Your task to perform on an android device: choose inbox layout in the gmail app Image 0: 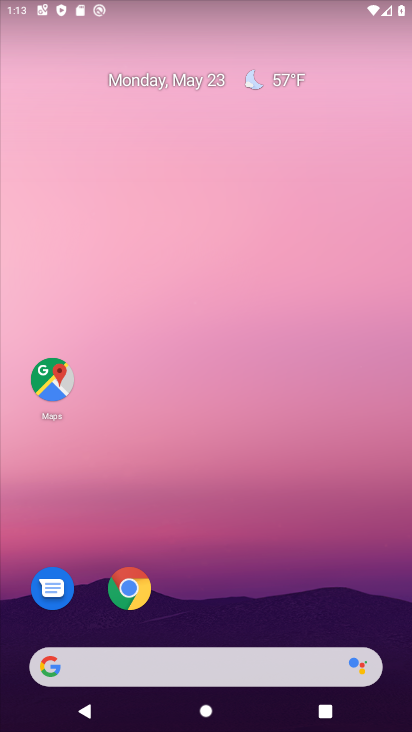
Step 0: drag from (230, 622) to (208, 180)
Your task to perform on an android device: choose inbox layout in the gmail app Image 1: 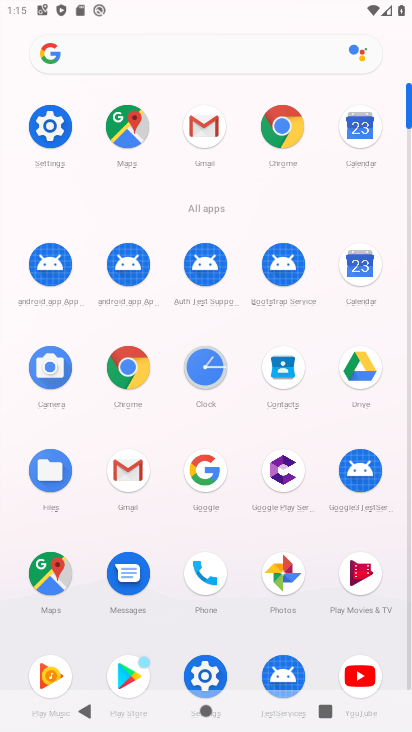
Step 1: click (221, 136)
Your task to perform on an android device: choose inbox layout in the gmail app Image 2: 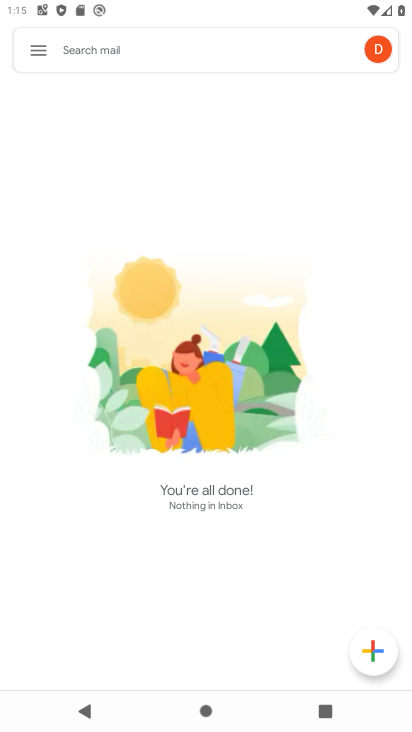
Step 2: click (47, 50)
Your task to perform on an android device: choose inbox layout in the gmail app Image 3: 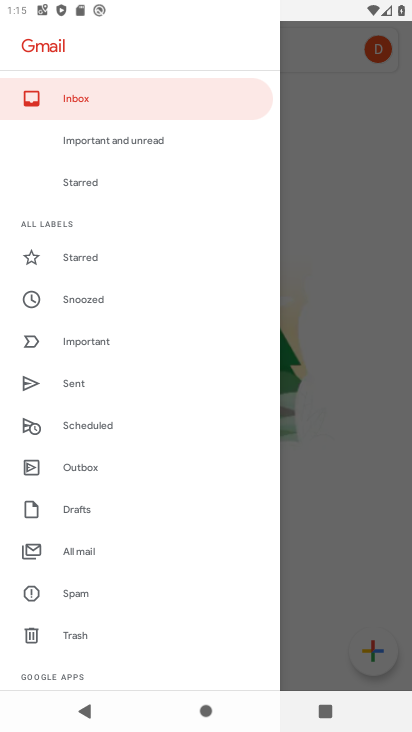
Step 3: drag from (174, 636) to (143, 197)
Your task to perform on an android device: choose inbox layout in the gmail app Image 4: 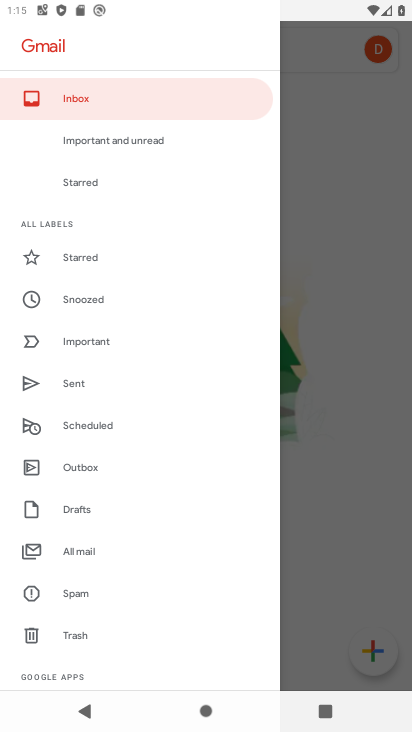
Step 4: drag from (61, 640) to (65, 104)
Your task to perform on an android device: choose inbox layout in the gmail app Image 5: 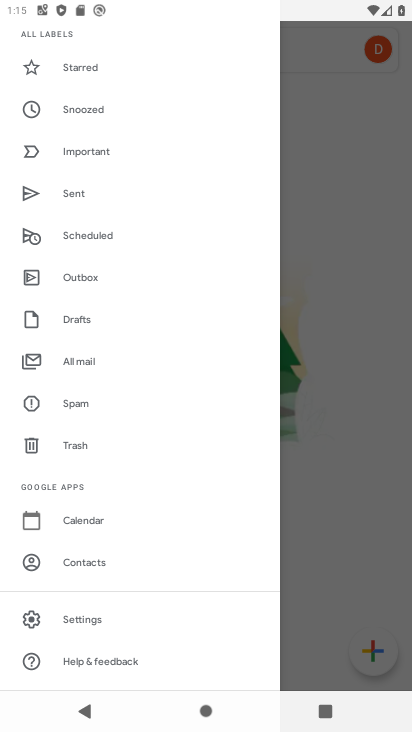
Step 5: click (81, 623)
Your task to perform on an android device: choose inbox layout in the gmail app Image 6: 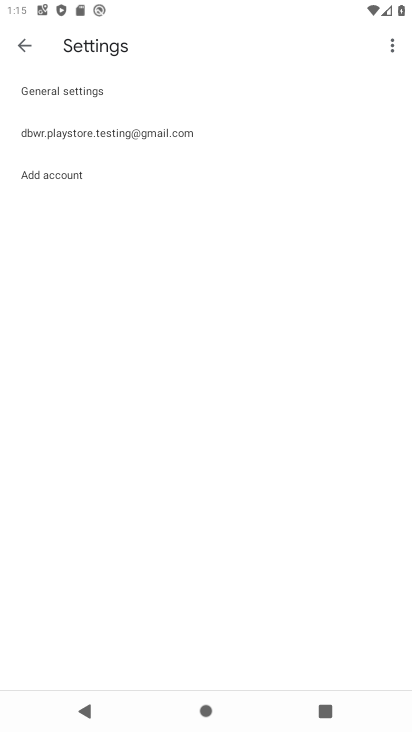
Step 6: click (160, 133)
Your task to perform on an android device: choose inbox layout in the gmail app Image 7: 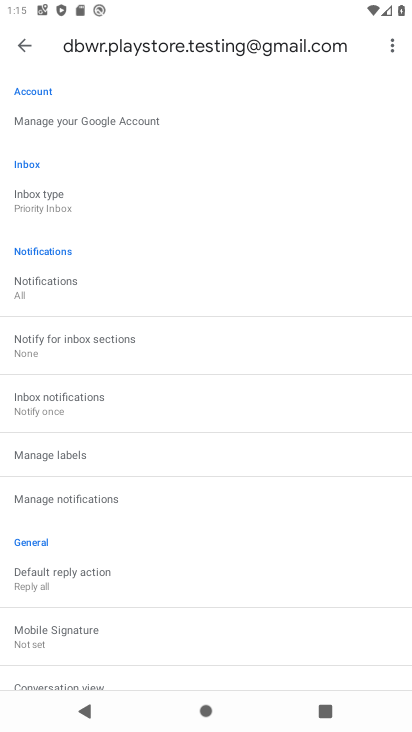
Step 7: click (72, 208)
Your task to perform on an android device: choose inbox layout in the gmail app Image 8: 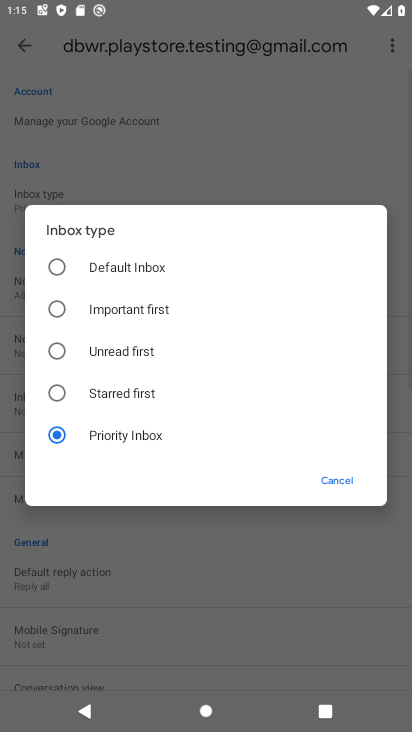
Step 8: click (93, 257)
Your task to perform on an android device: choose inbox layout in the gmail app Image 9: 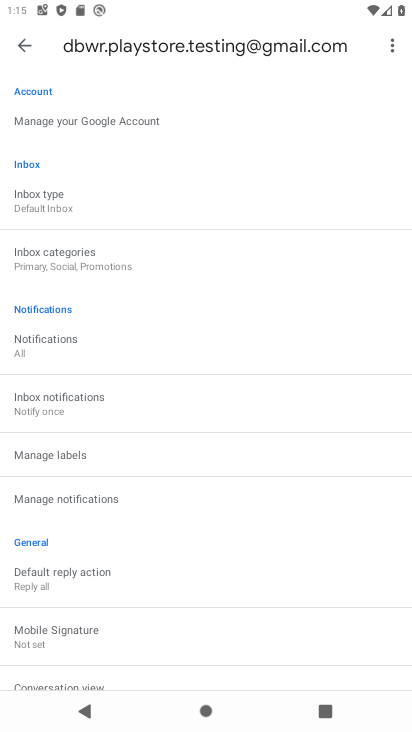
Step 9: task complete